Your task to perform on an android device: empty trash in google photos Image 0: 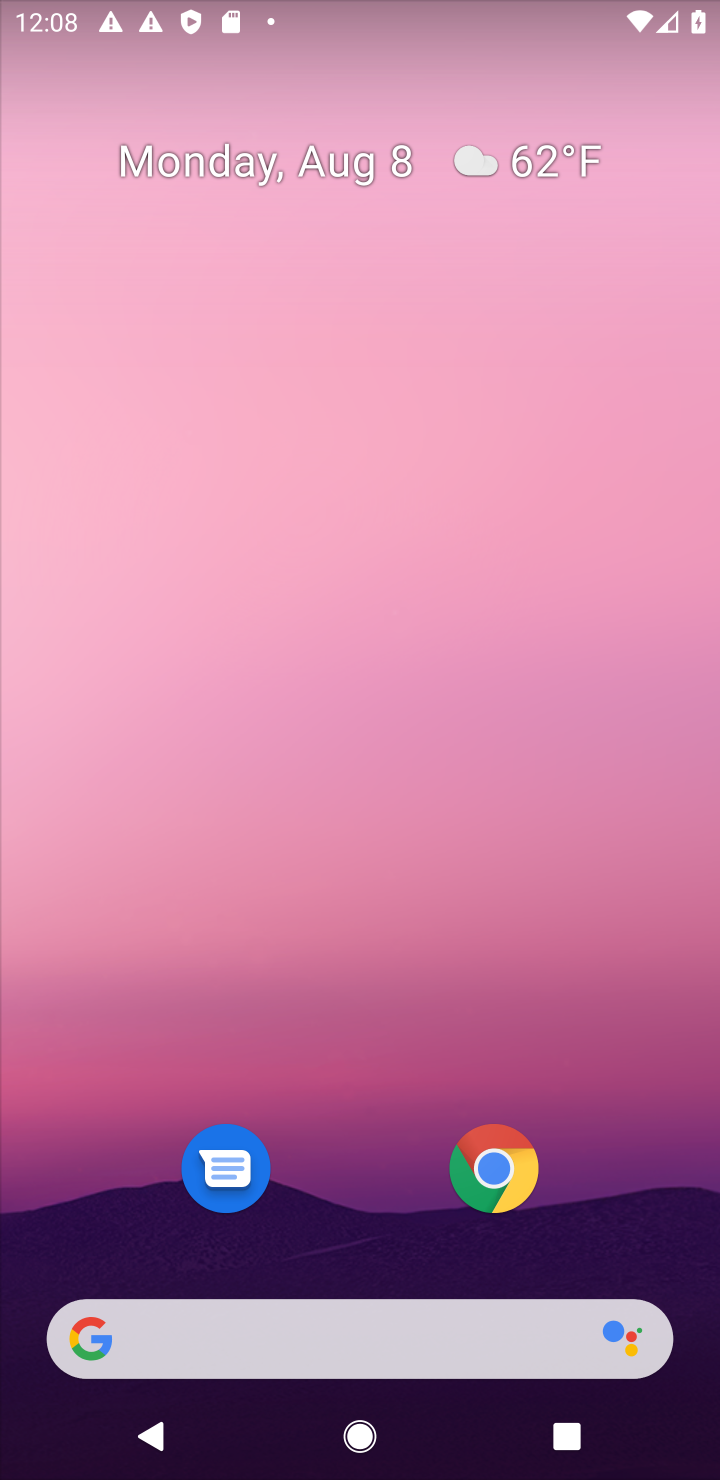
Step 0: drag from (376, 1251) to (336, 268)
Your task to perform on an android device: empty trash in google photos Image 1: 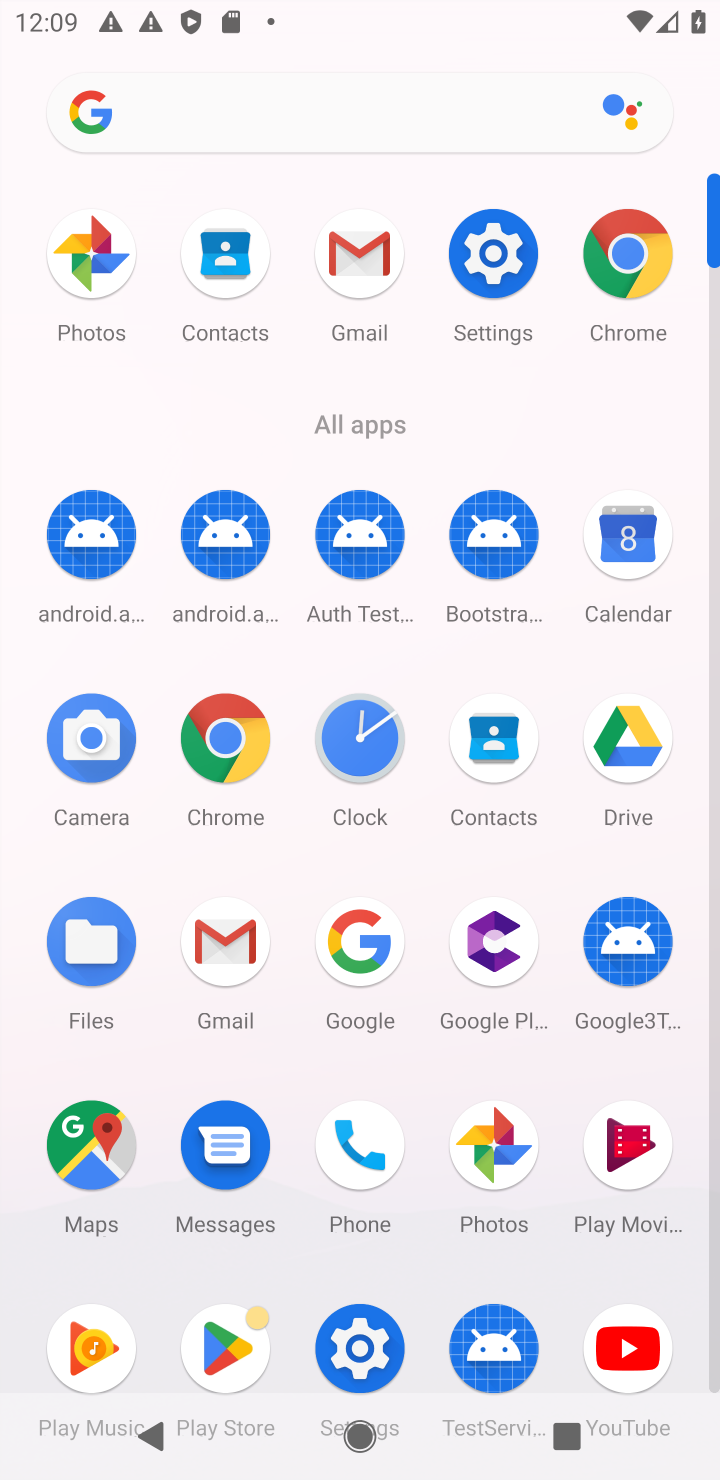
Step 1: click (476, 1185)
Your task to perform on an android device: empty trash in google photos Image 2: 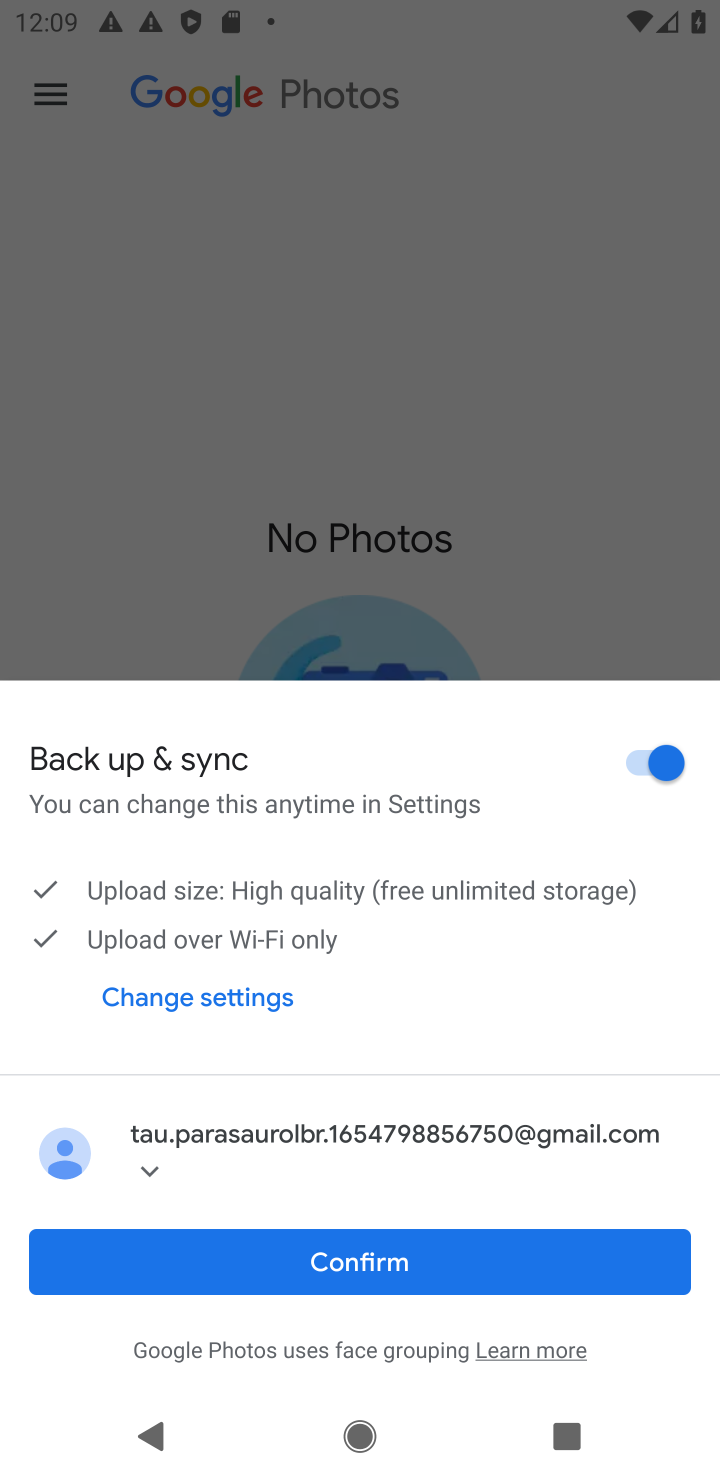
Step 2: click (352, 1285)
Your task to perform on an android device: empty trash in google photos Image 3: 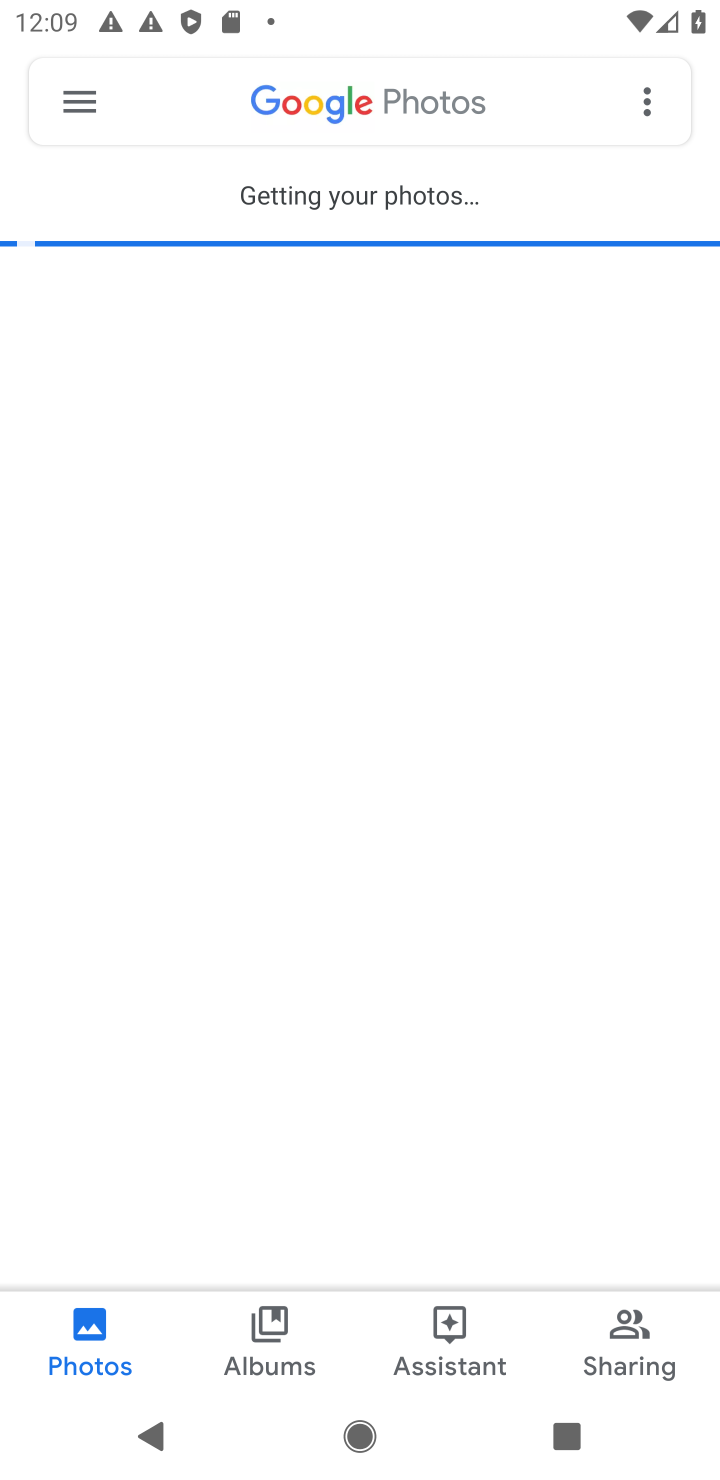
Step 3: task complete